Your task to perform on an android device: turn off priority inbox in the gmail app Image 0: 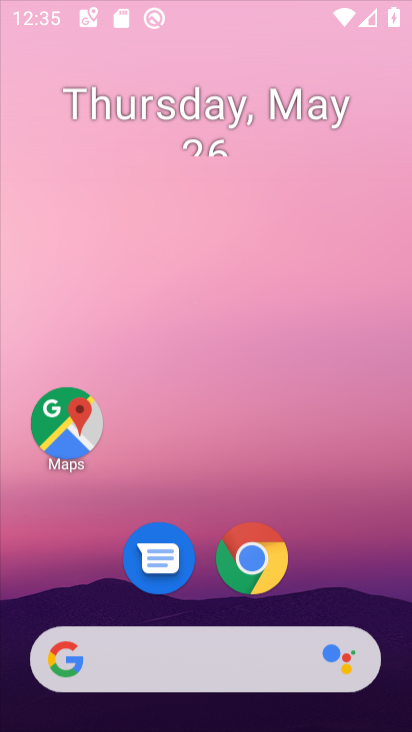
Step 0: press home button
Your task to perform on an android device: turn off priority inbox in the gmail app Image 1: 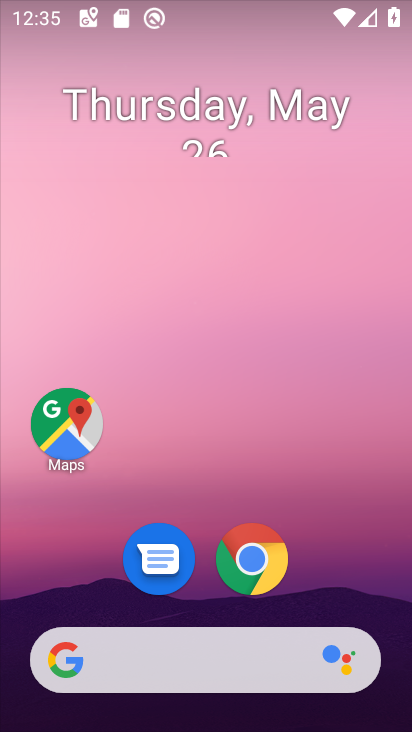
Step 1: drag from (336, 592) to (285, 165)
Your task to perform on an android device: turn off priority inbox in the gmail app Image 2: 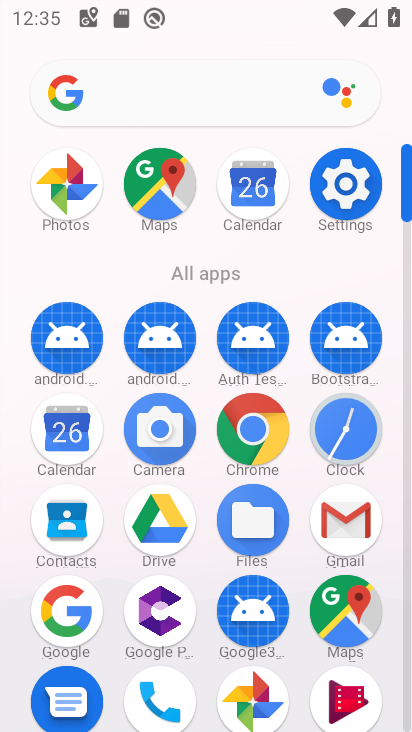
Step 2: click (345, 520)
Your task to perform on an android device: turn off priority inbox in the gmail app Image 3: 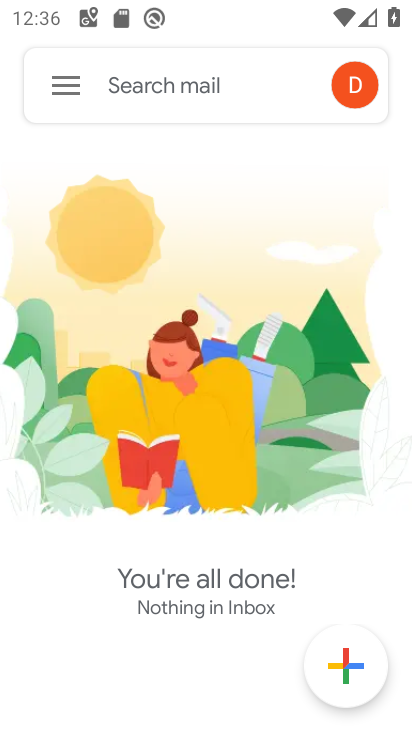
Step 3: click (51, 95)
Your task to perform on an android device: turn off priority inbox in the gmail app Image 4: 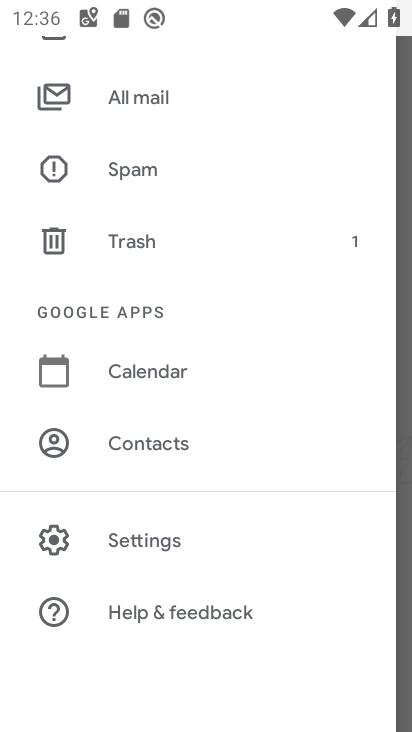
Step 4: click (147, 538)
Your task to perform on an android device: turn off priority inbox in the gmail app Image 5: 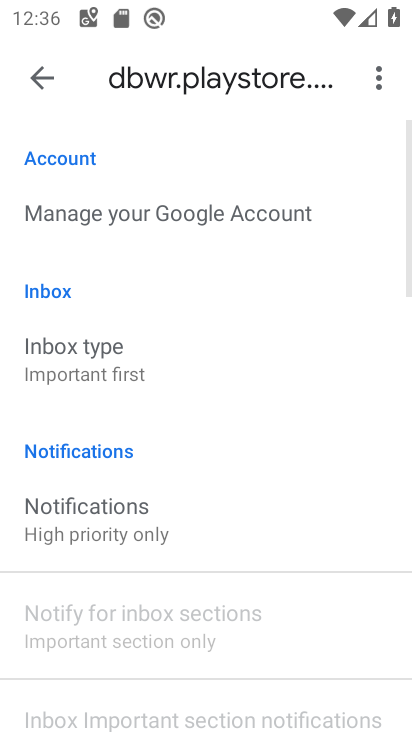
Step 5: drag from (324, 495) to (318, 152)
Your task to perform on an android device: turn off priority inbox in the gmail app Image 6: 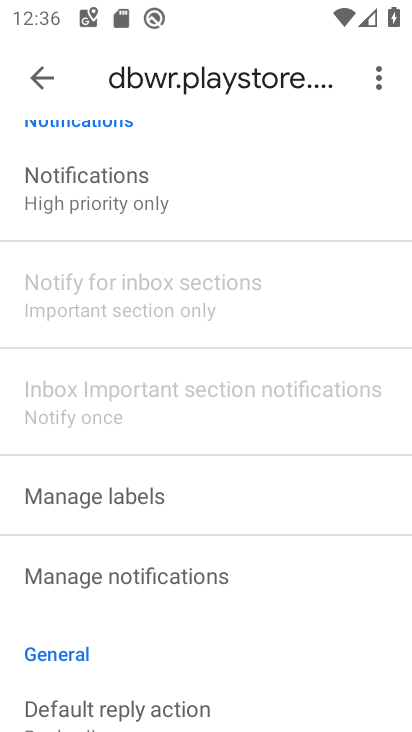
Step 6: drag from (256, 154) to (271, 411)
Your task to perform on an android device: turn off priority inbox in the gmail app Image 7: 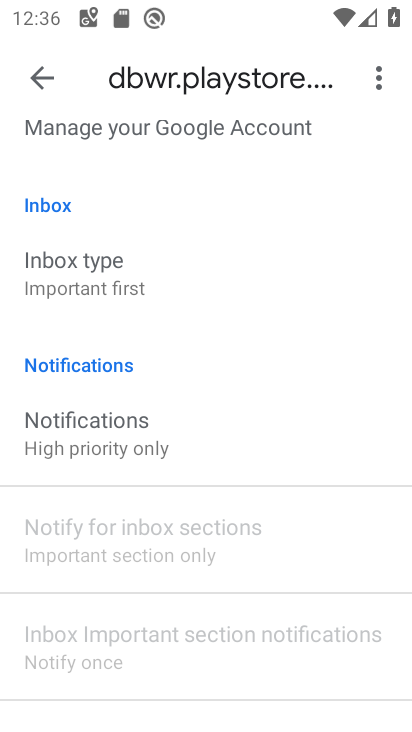
Step 7: drag from (192, 201) to (223, 387)
Your task to perform on an android device: turn off priority inbox in the gmail app Image 8: 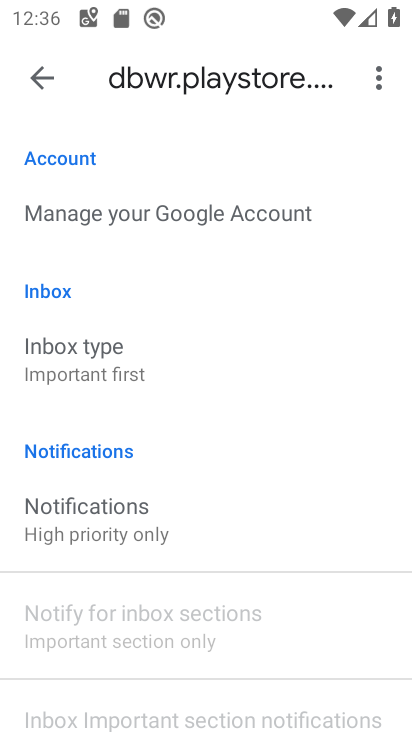
Step 8: click (76, 368)
Your task to perform on an android device: turn off priority inbox in the gmail app Image 9: 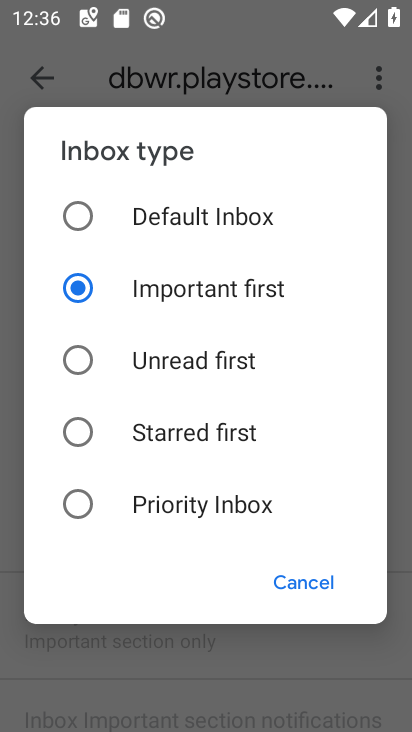
Step 9: task complete